Your task to perform on an android device: Open eBay Image 0: 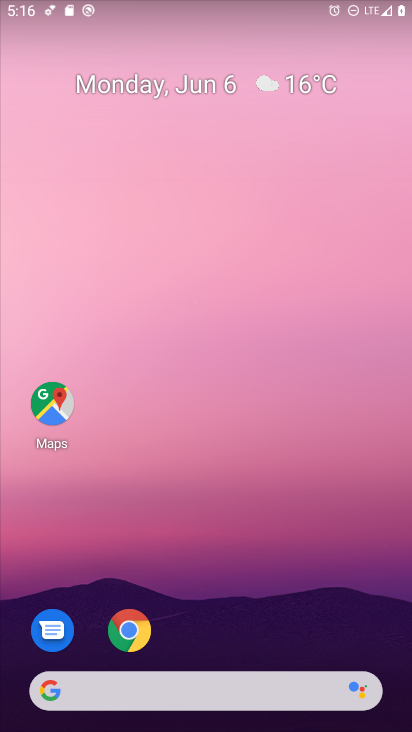
Step 0: click (140, 634)
Your task to perform on an android device: Open eBay Image 1: 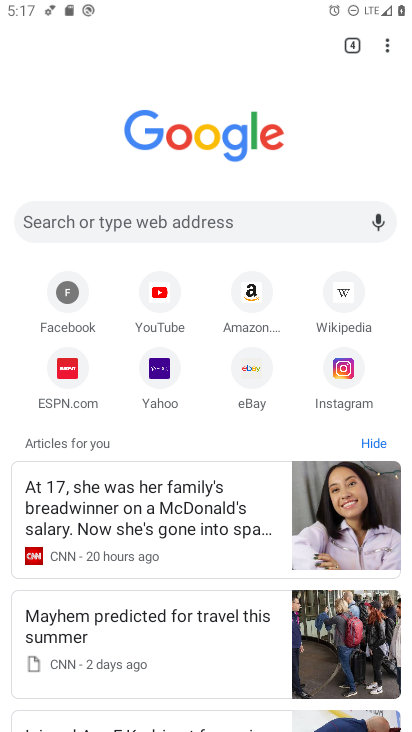
Step 1: click (256, 369)
Your task to perform on an android device: Open eBay Image 2: 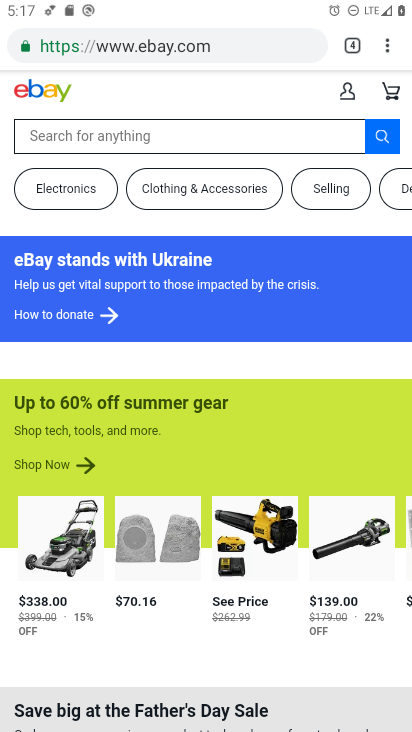
Step 2: task complete